Your task to perform on an android device: Add "razer blade" to the cart on newegg.com Image 0: 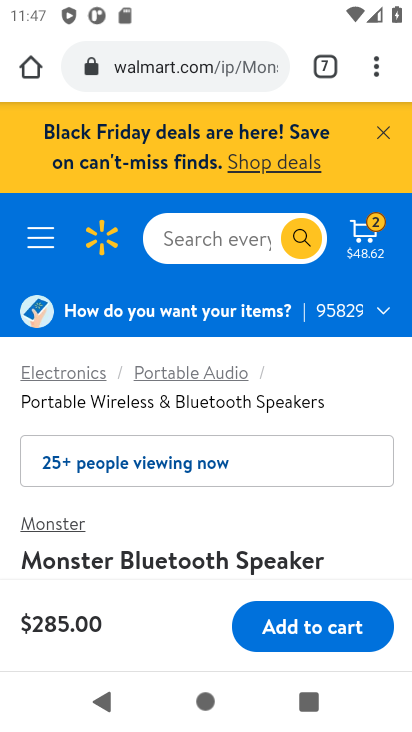
Step 0: click (204, 68)
Your task to perform on an android device: Add "razer blade" to the cart on newegg.com Image 1: 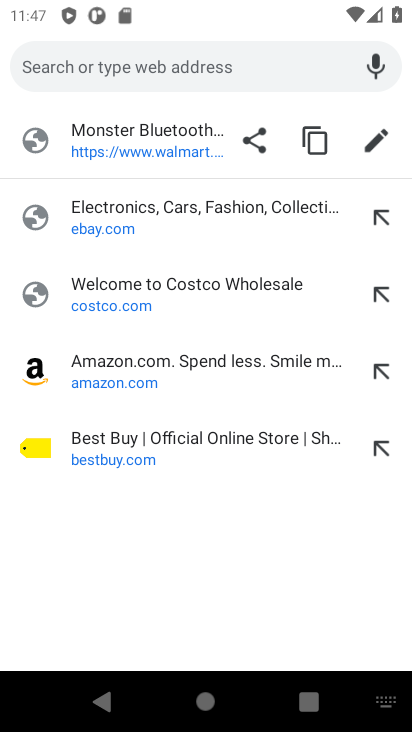
Step 1: type "newegg.com"
Your task to perform on an android device: Add "razer blade" to the cart on newegg.com Image 2: 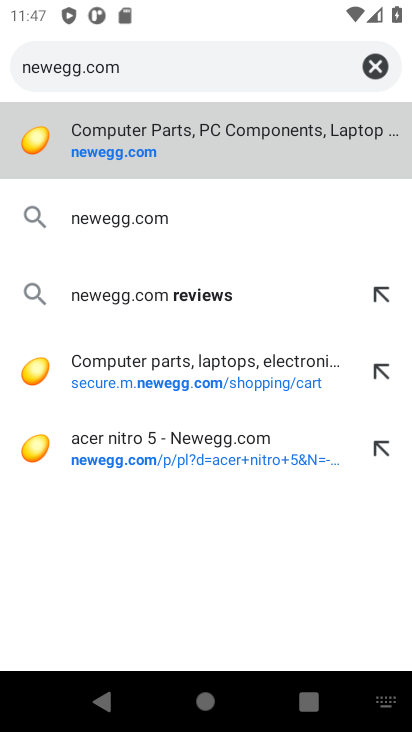
Step 2: click (100, 152)
Your task to perform on an android device: Add "razer blade" to the cart on newegg.com Image 3: 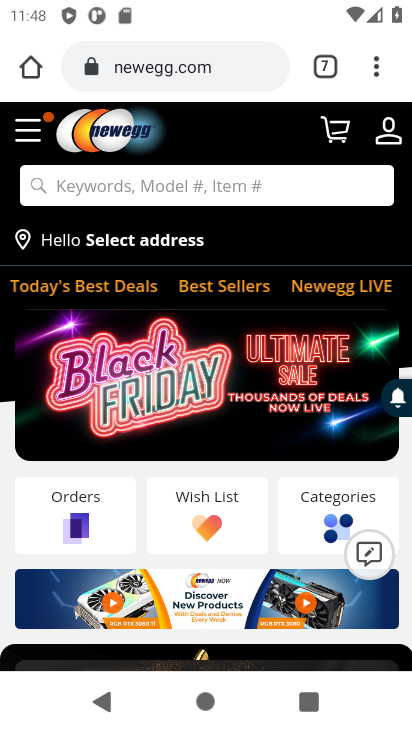
Step 3: click (118, 190)
Your task to perform on an android device: Add "razer blade" to the cart on newegg.com Image 4: 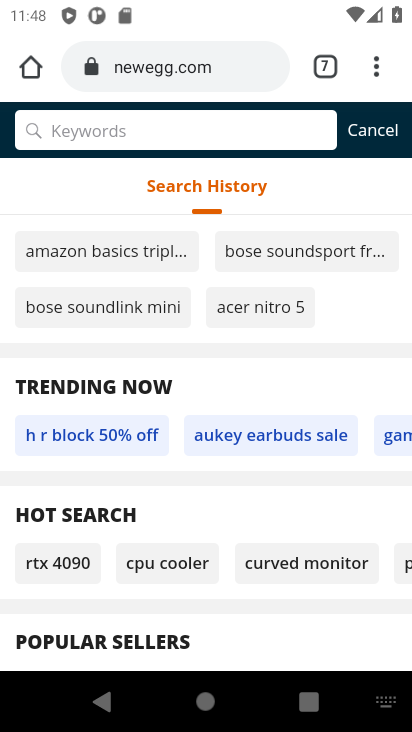
Step 4: type "razer blade"
Your task to perform on an android device: Add "razer blade" to the cart on newegg.com Image 5: 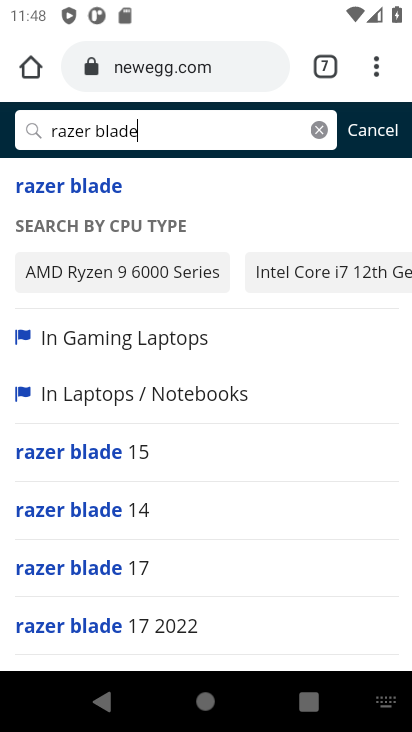
Step 5: click (83, 181)
Your task to perform on an android device: Add "razer blade" to the cart on newegg.com Image 6: 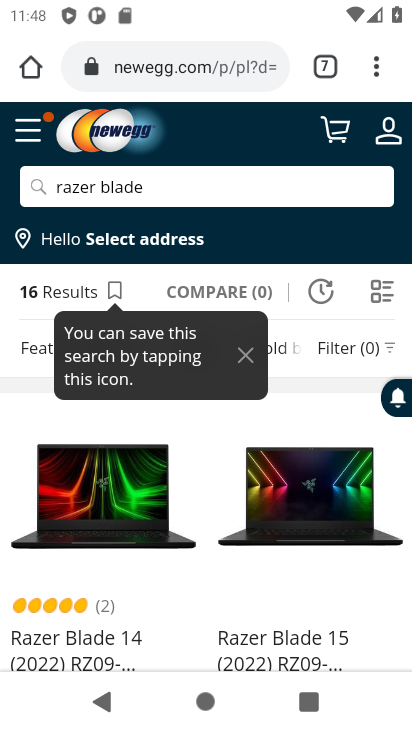
Step 6: drag from (189, 506) to (212, 275)
Your task to perform on an android device: Add "razer blade" to the cart on newegg.com Image 7: 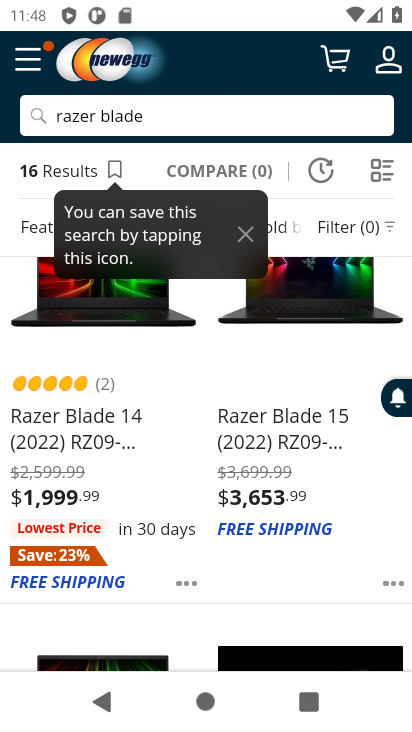
Step 7: click (59, 358)
Your task to perform on an android device: Add "razer blade" to the cart on newegg.com Image 8: 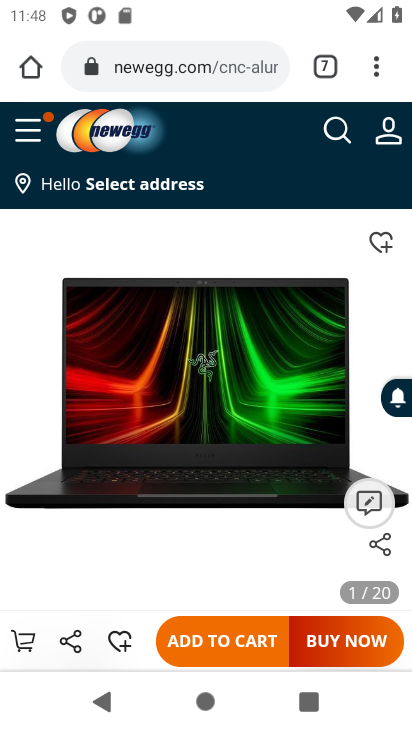
Step 8: click (206, 657)
Your task to perform on an android device: Add "razer blade" to the cart on newegg.com Image 9: 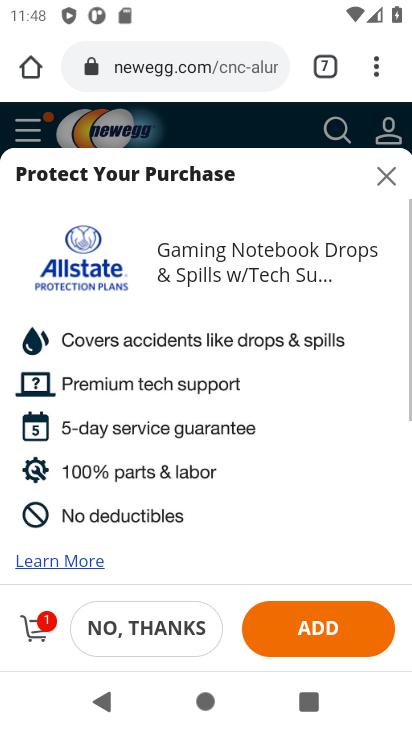
Step 9: task complete